Your task to perform on an android device: toggle airplane mode Image 0: 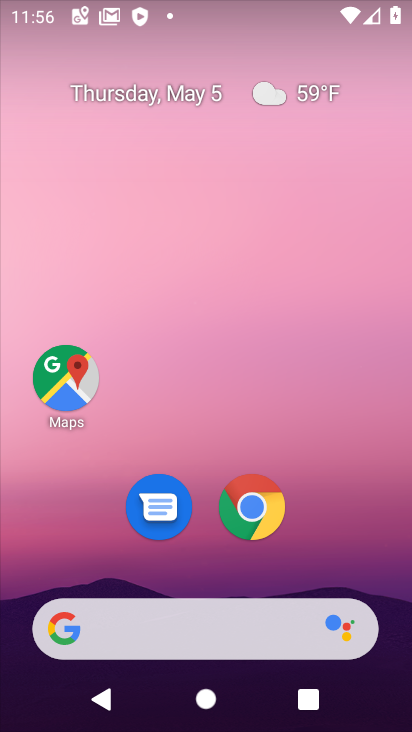
Step 0: drag from (198, 91) to (196, 21)
Your task to perform on an android device: toggle airplane mode Image 1: 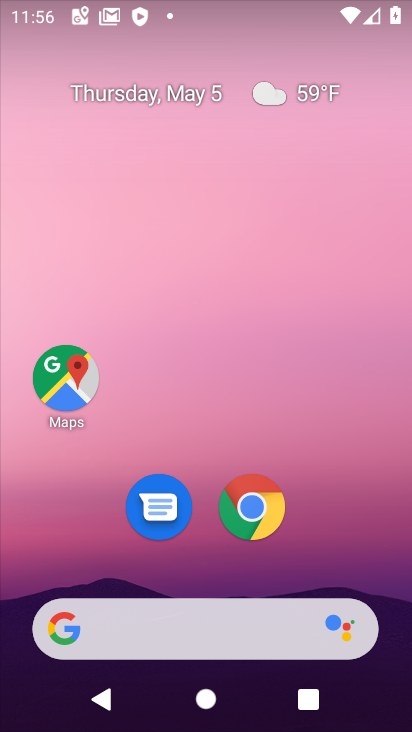
Step 1: drag from (300, 487) to (223, 58)
Your task to perform on an android device: toggle airplane mode Image 2: 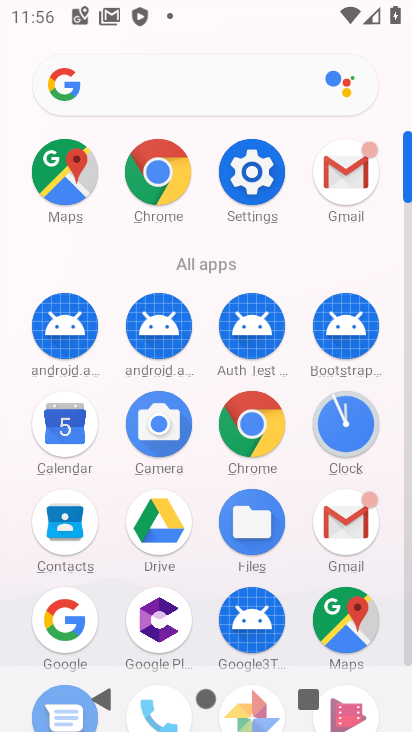
Step 2: drag from (321, 564) to (233, 164)
Your task to perform on an android device: toggle airplane mode Image 3: 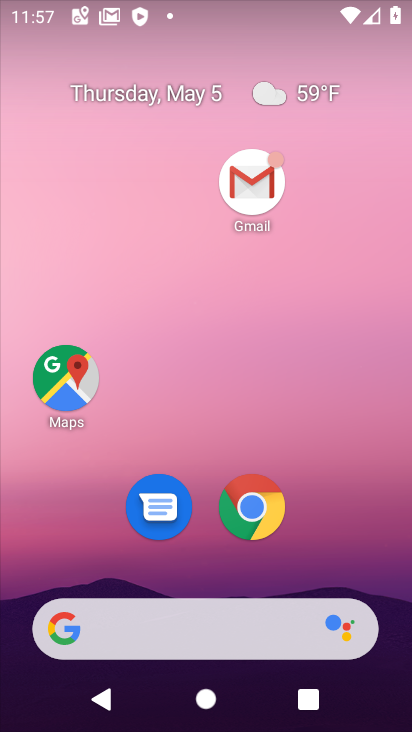
Step 3: drag from (274, 141) to (251, 51)
Your task to perform on an android device: toggle airplane mode Image 4: 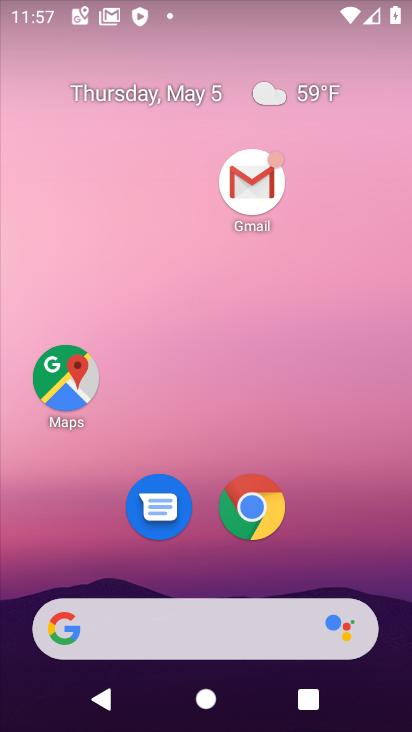
Step 4: drag from (322, 558) to (247, 0)
Your task to perform on an android device: toggle airplane mode Image 5: 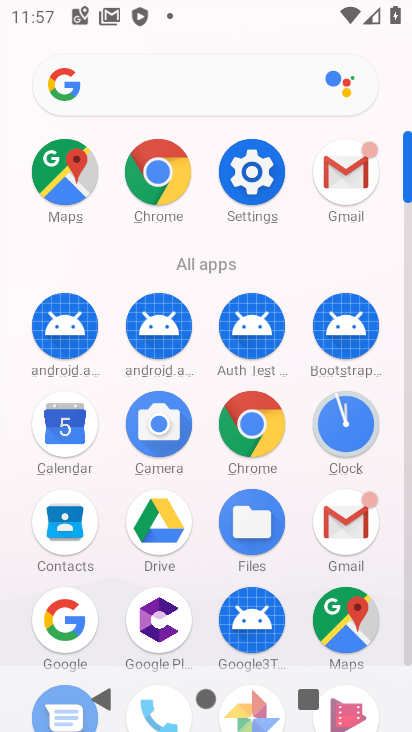
Step 5: click (249, 160)
Your task to perform on an android device: toggle airplane mode Image 6: 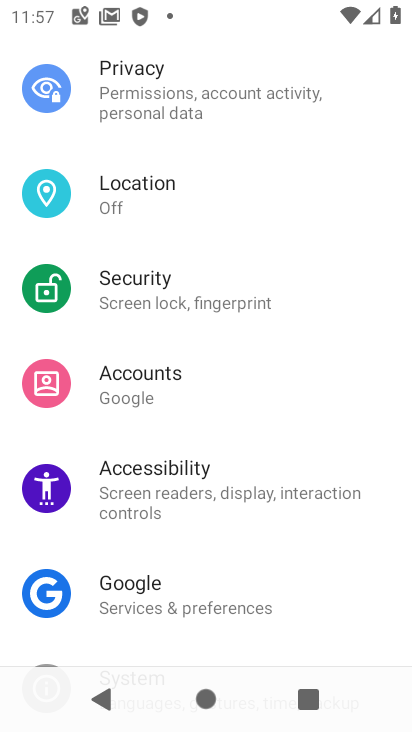
Step 6: drag from (220, 205) to (386, 285)
Your task to perform on an android device: toggle airplane mode Image 7: 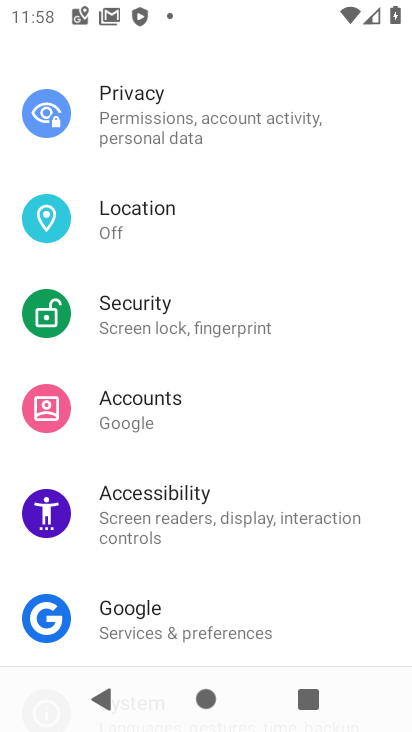
Step 7: click (152, 121)
Your task to perform on an android device: toggle airplane mode Image 8: 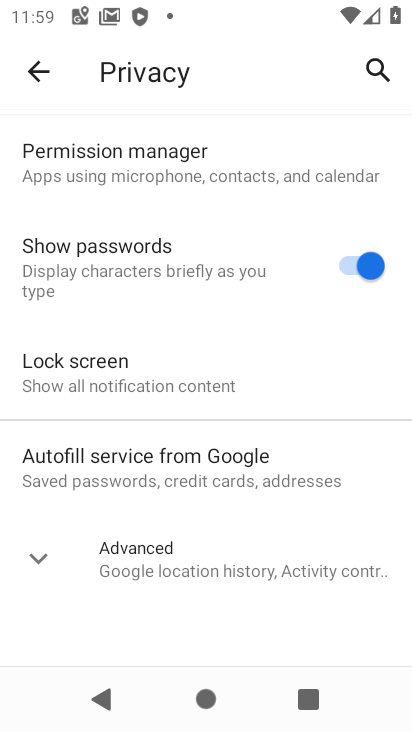
Step 8: task complete